Your task to perform on an android device: Clear the shopping cart on amazon.com. Image 0: 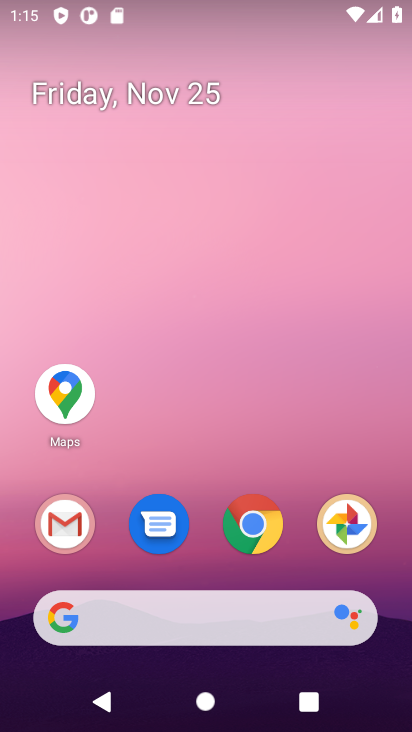
Step 0: click (254, 525)
Your task to perform on an android device: Clear the shopping cart on amazon.com. Image 1: 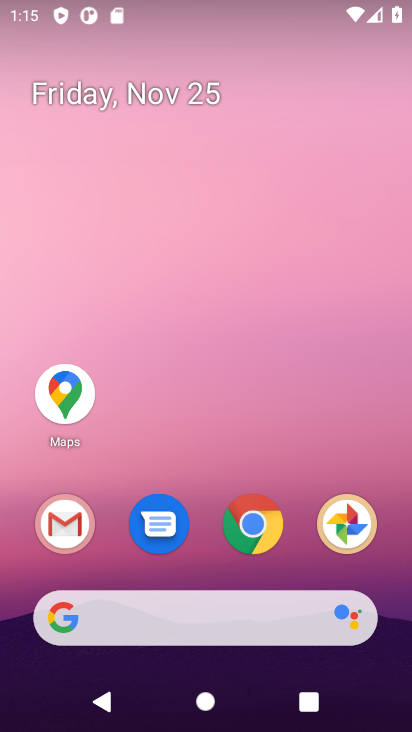
Step 1: click (254, 525)
Your task to perform on an android device: Clear the shopping cart on amazon.com. Image 2: 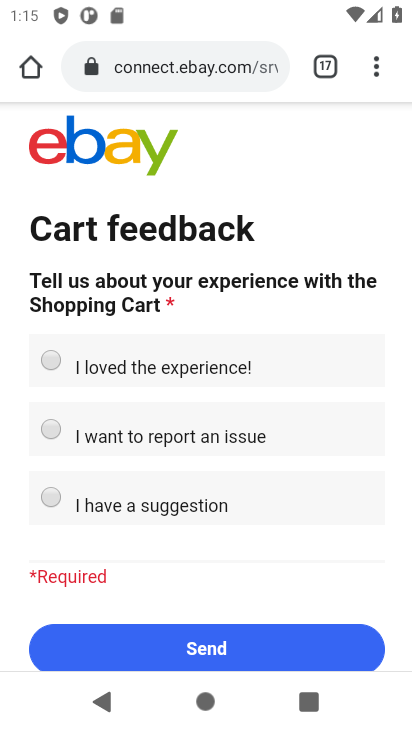
Step 2: click (170, 71)
Your task to perform on an android device: Clear the shopping cart on amazon.com. Image 3: 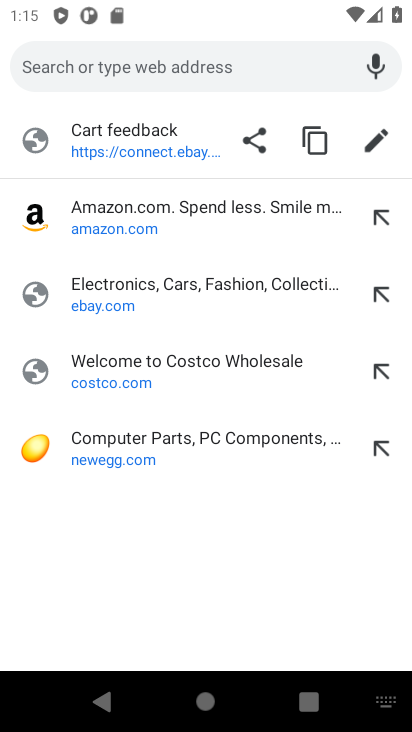
Step 3: click (100, 234)
Your task to perform on an android device: Clear the shopping cart on amazon.com. Image 4: 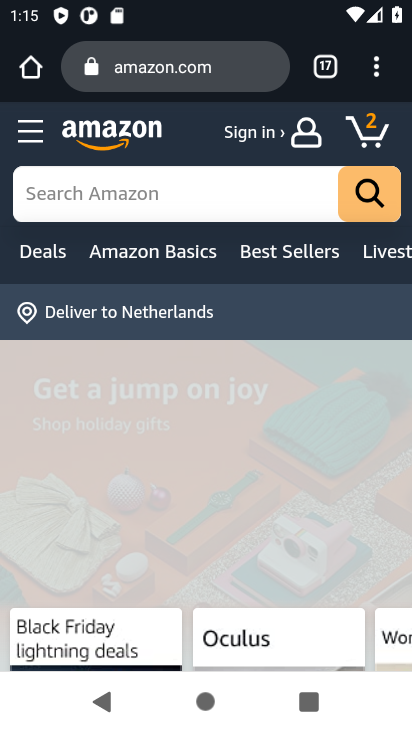
Step 4: click (370, 130)
Your task to perform on an android device: Clear the shopping cart on amazon.com. Image 5: 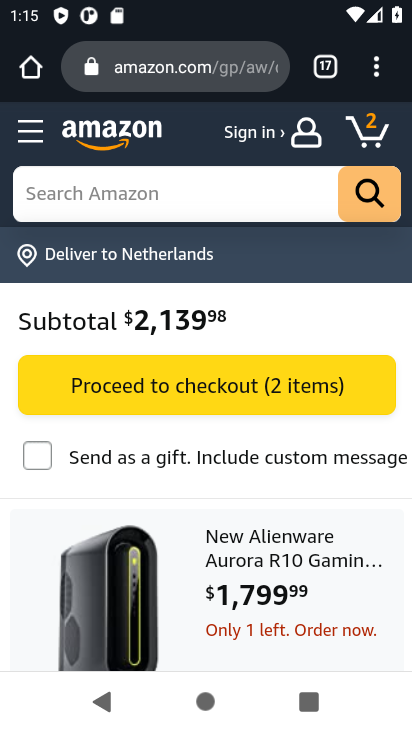
Step 5: drag from (203, 442) to (202, 271)
Your task to perform on an android device: Clear the shopping cart on amazon.com. Image 6: 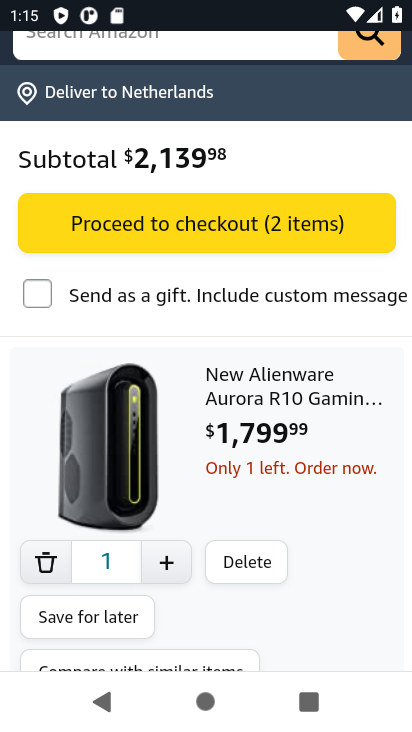
Step 6: click (242, 562)
Your task to perform on an android device: Clear the shopping cart on amazon.com. Image 7: 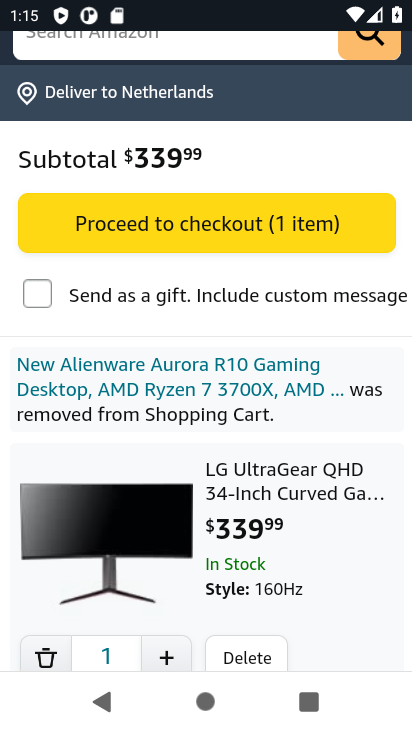
Step 7: drag from (303, 548) to (323, 228)
Your task to perform on an android device: Clear the shopping cart on amazon.com. Image 8: 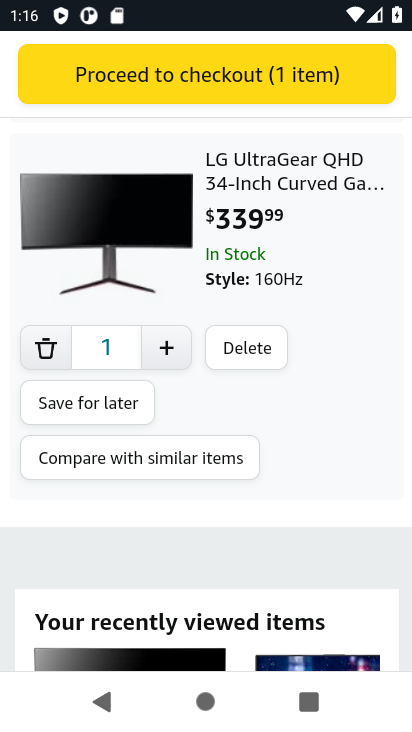
Step 8: click (257, 343)
Your task to perform on an android device: Clear the shopping cart on amazon.com. Image 9: 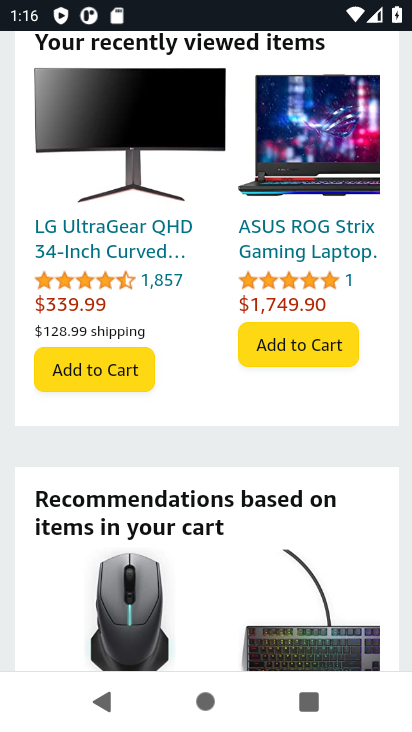
Step 9: task complete